Your task to perform on an android device: read, delete, or share a saved page in the chrome app Image 0: 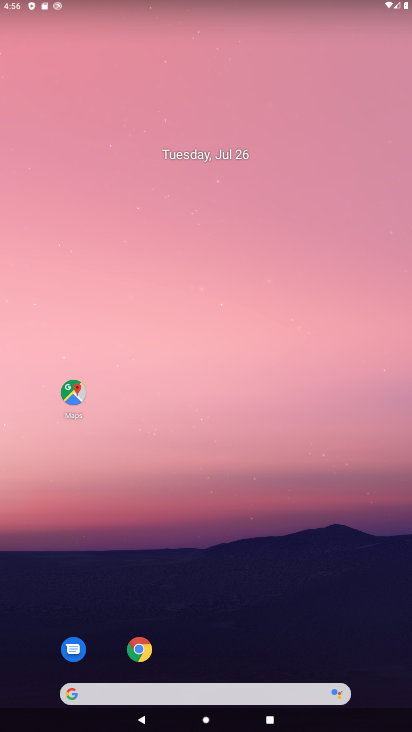
Step 0: click (143, 649)
Your task to perform on an android device: read, delete, or share a saved page in the chrome app Image 1: 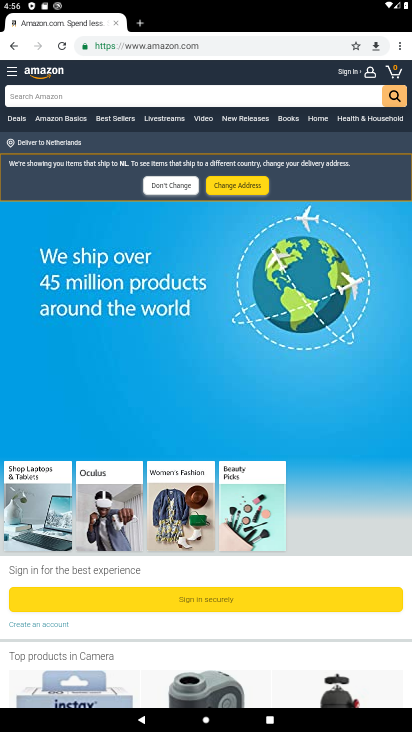
Step 1: click (401, 46)
Your task to perform on an android device: read, delete, or share a saved page in the chrome app Image 2: 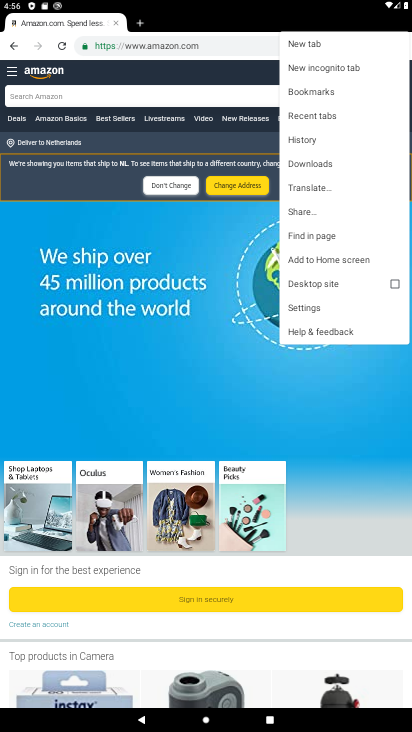
Step 2: click (344, 166)
Your task to perform on an android device: read, delete, or share a saved page in the chrome app Image 3: 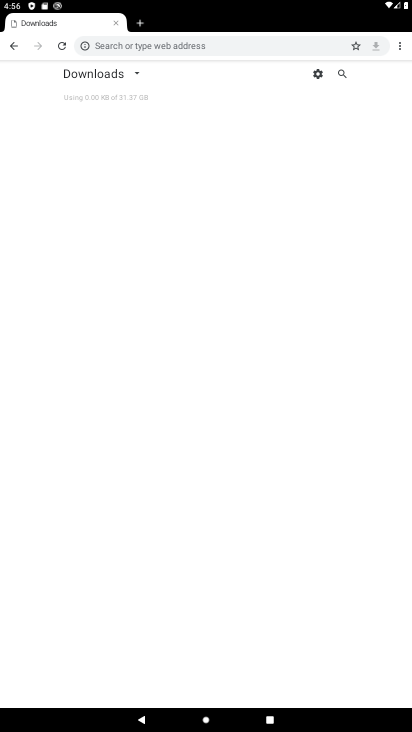
Step 3: click (123, 76)
Your task to perform on an android device: read, delete, or share a saved page in the chrome app Image 4: 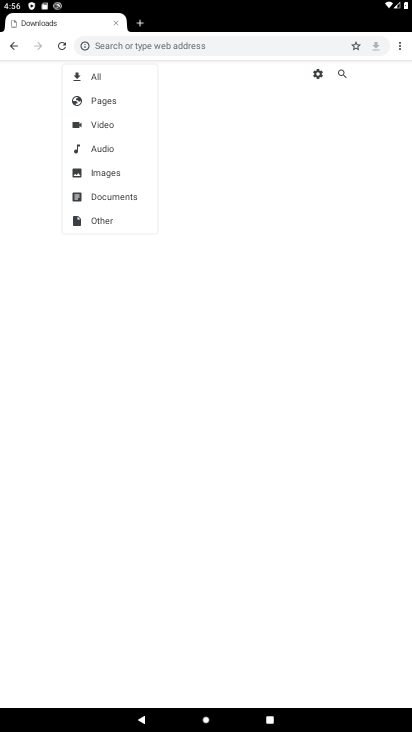
Step 4: click (110, 107)
Your task to perform on an android device: read, delete, or share a saved page in the chrome app Image 5: 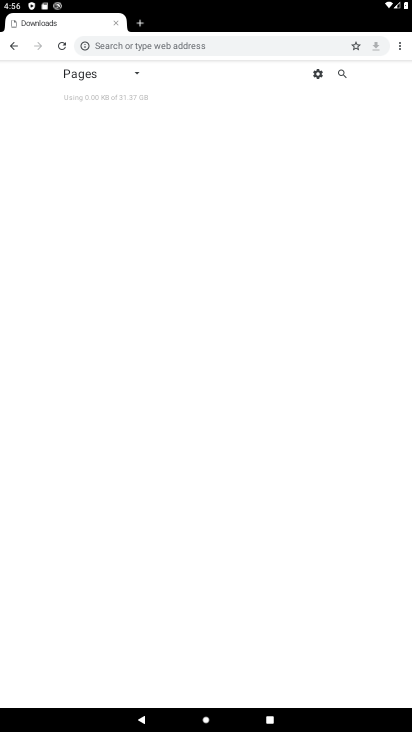
Step 5: task complete